Your task to perform on an android device: set the stopwatch Image 0: 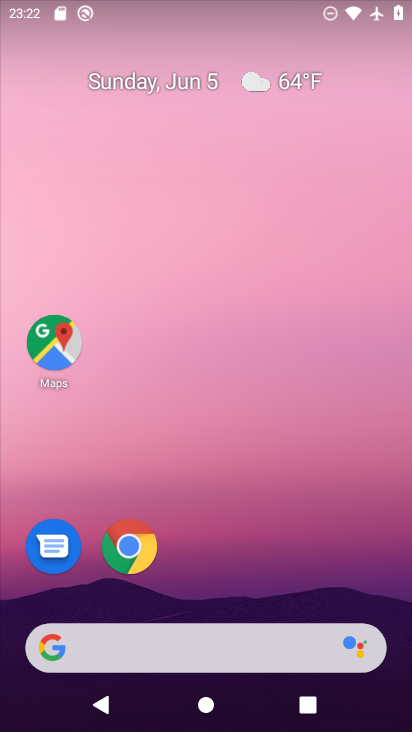
Step 0: drag from (175, 545) to (225, 27)
Your task to perform on an android device: set the stopwatch Image 1: 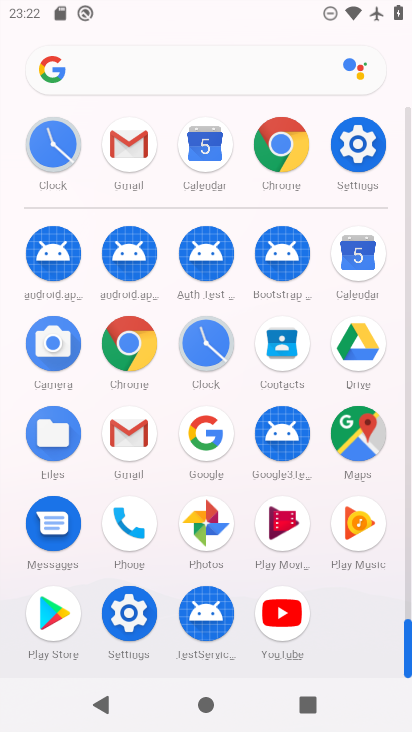
Step 1: click (199, 346)
Your task to perform on an android device: set the stopwatch Image 2: 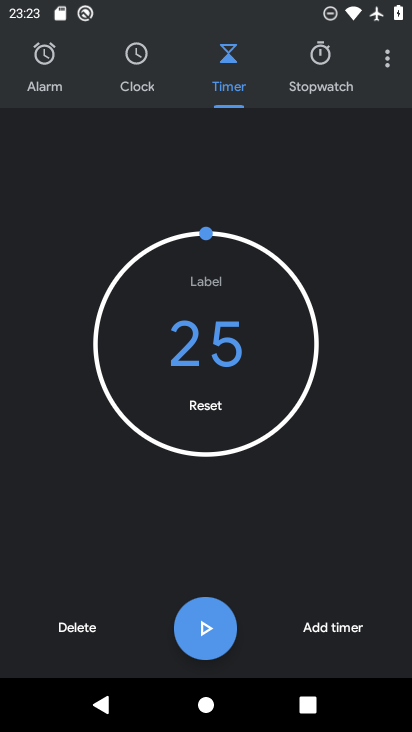
Step 2: drag from (281, 510) to (323, 62)
Your task to perform on an android device: set the stopwatch Image 3: 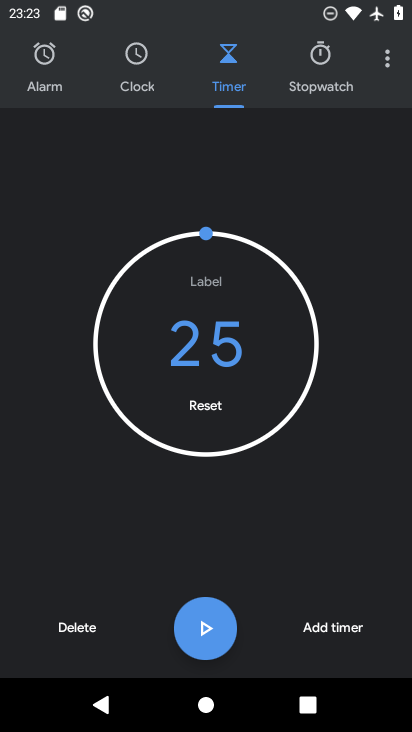
Step 3: click (316, 56)
Your task to perform on an android device: set the stopwatch Image 4: 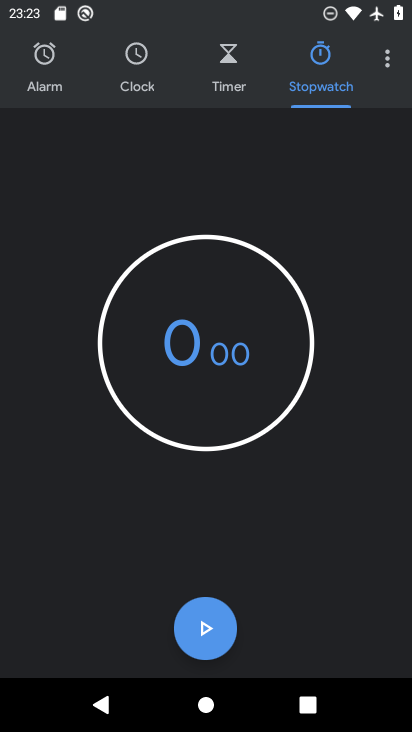
Step 4: click (214, 626)
Your task to perform on an android device: set the stopwatch Image 5: 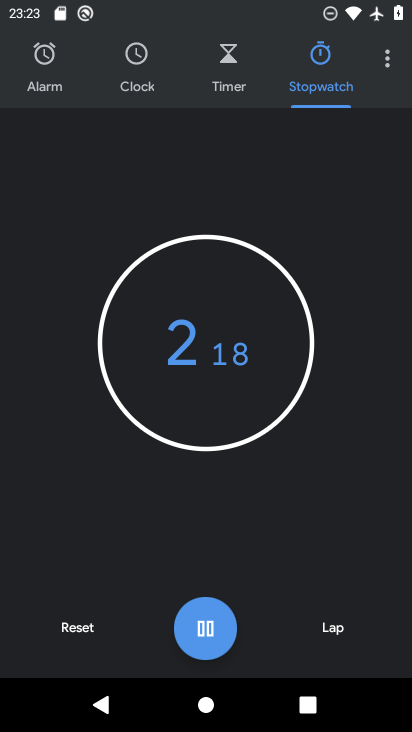
Step 5: task complete